Your task to perform on an android device: turn on bluetooth scan Image 0: 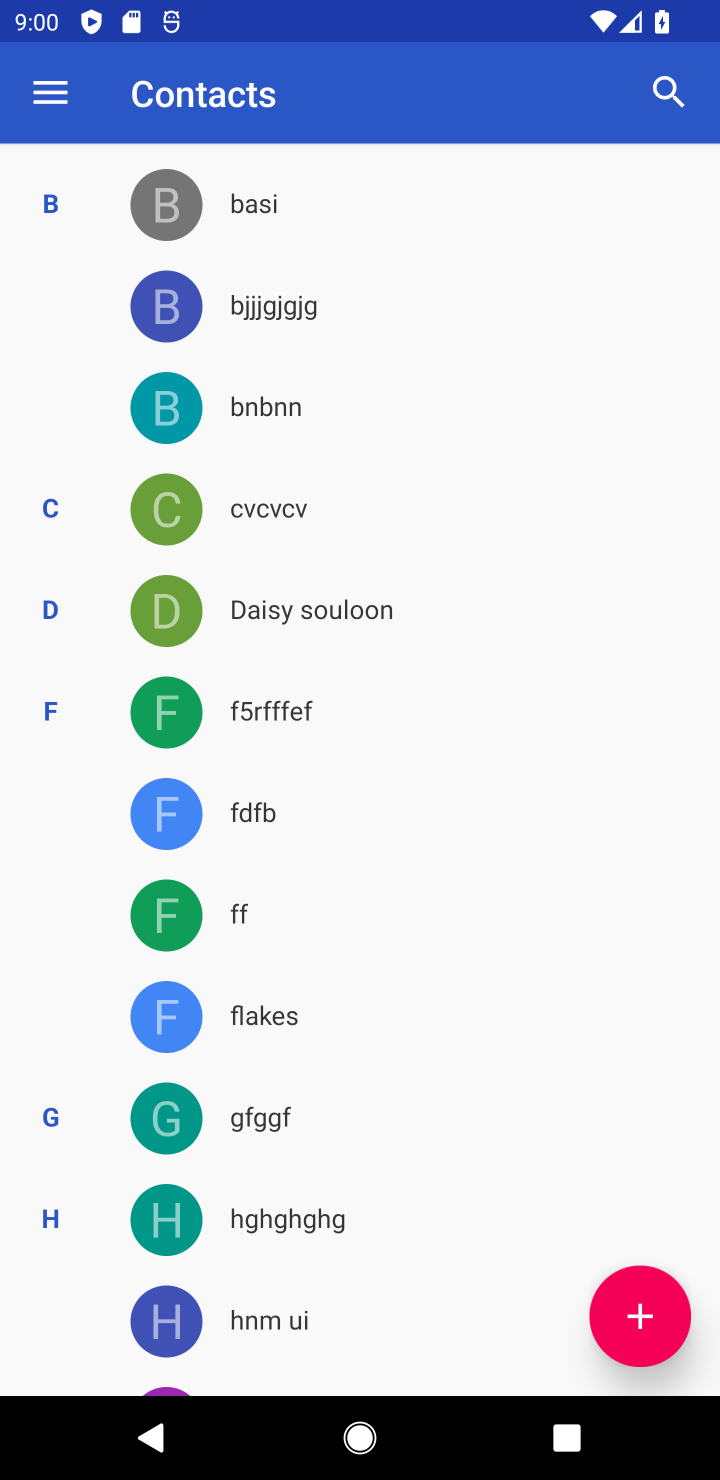
Step 0: press home button
Your task to perform on an android device: turn on bluetooth scan Image 1: 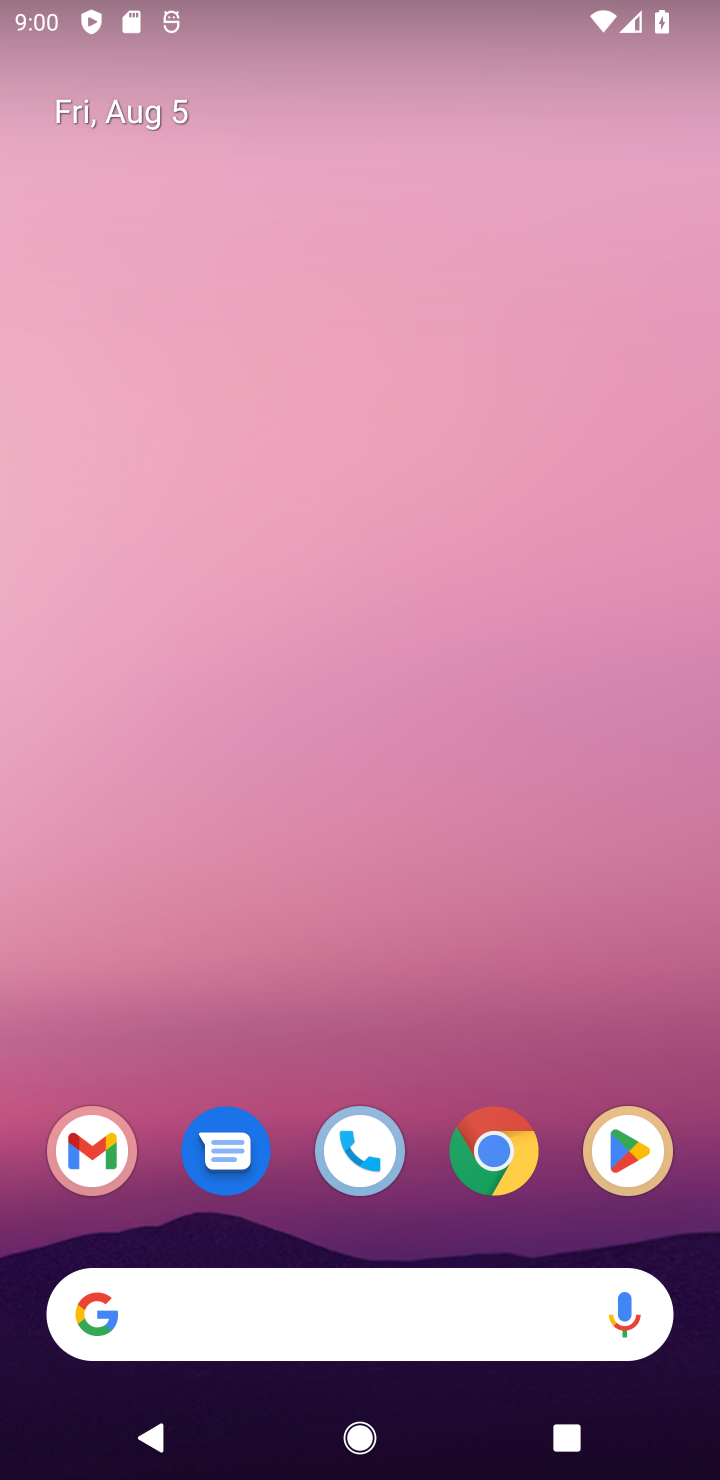
Step 1: click (283, 1208)
Your task to perform on an android device: turn on bluetooth scan Image 2: 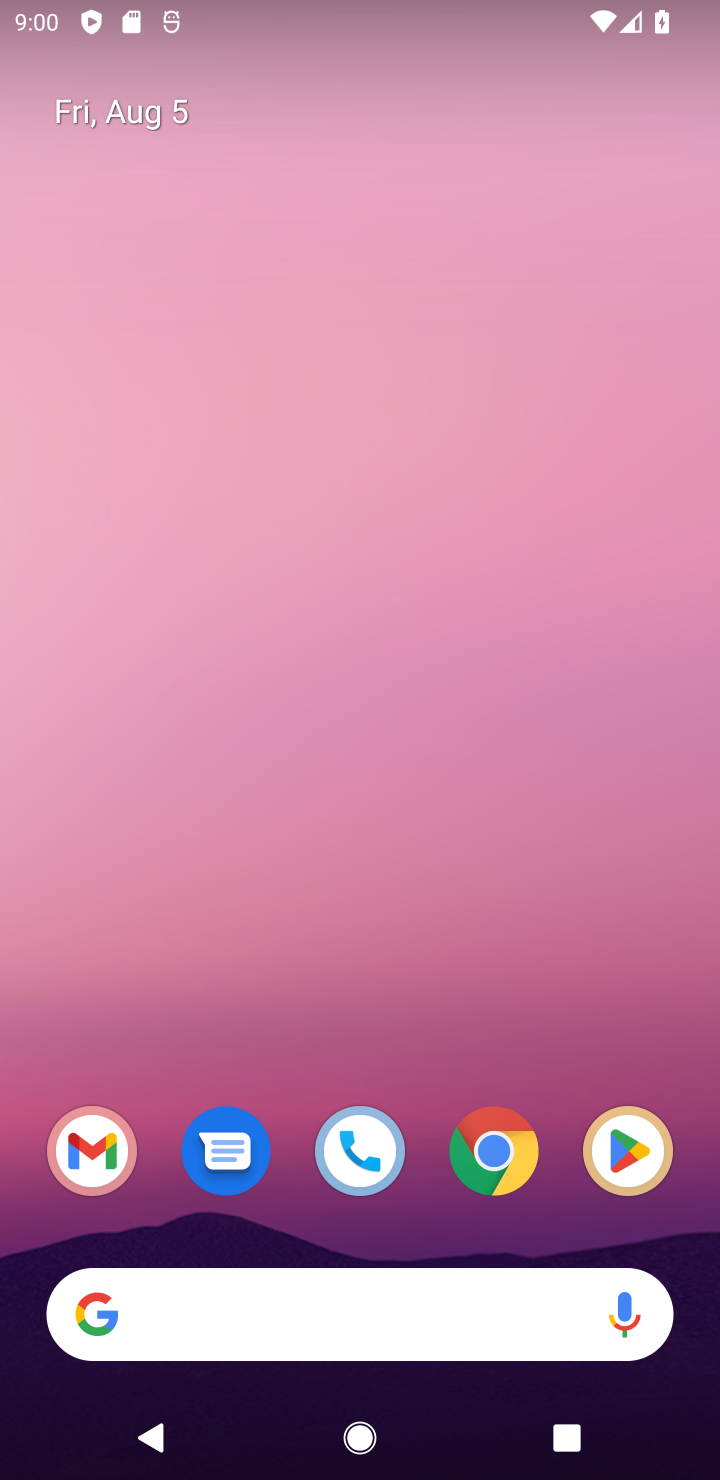
Step 2: drag from (379, 1212) to (404, 14)
Your task to perform on an android device: turn on bluetooth scan Image 3: 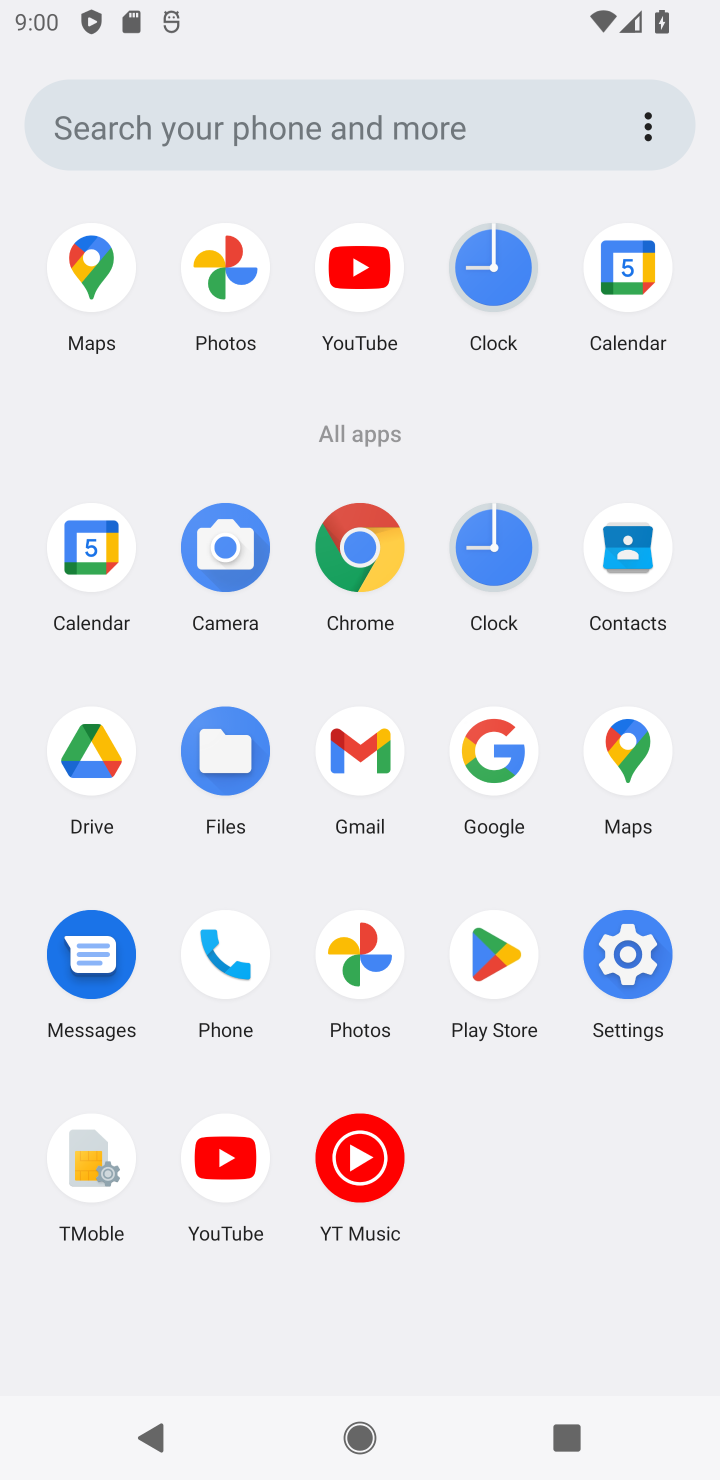
Step 3: click (625, 956)
Your task to perform on an android device: turn on bluetooth scan Image 4: 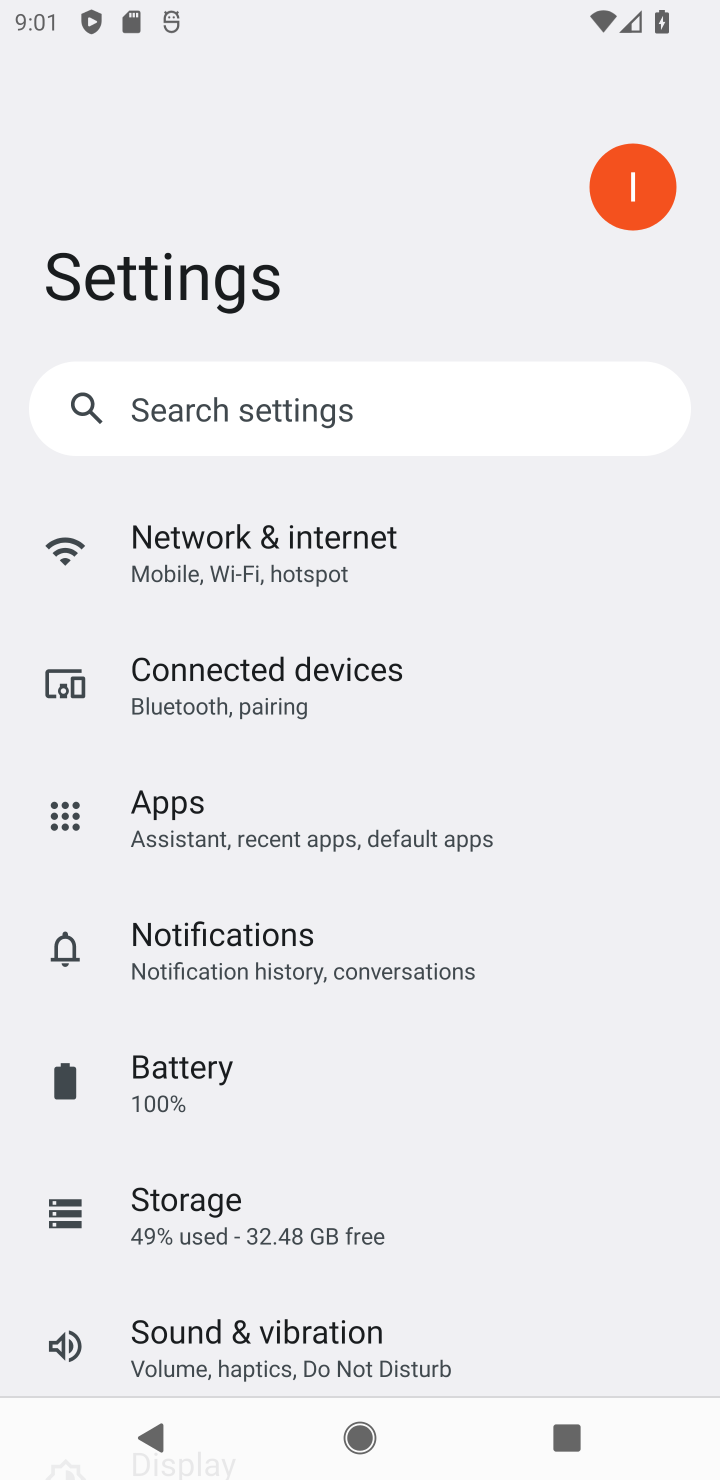
Step 4: drag from (277, 132) to (282, 45)
Your task to perform on an android device: turn on bluetooth scan Image 5: 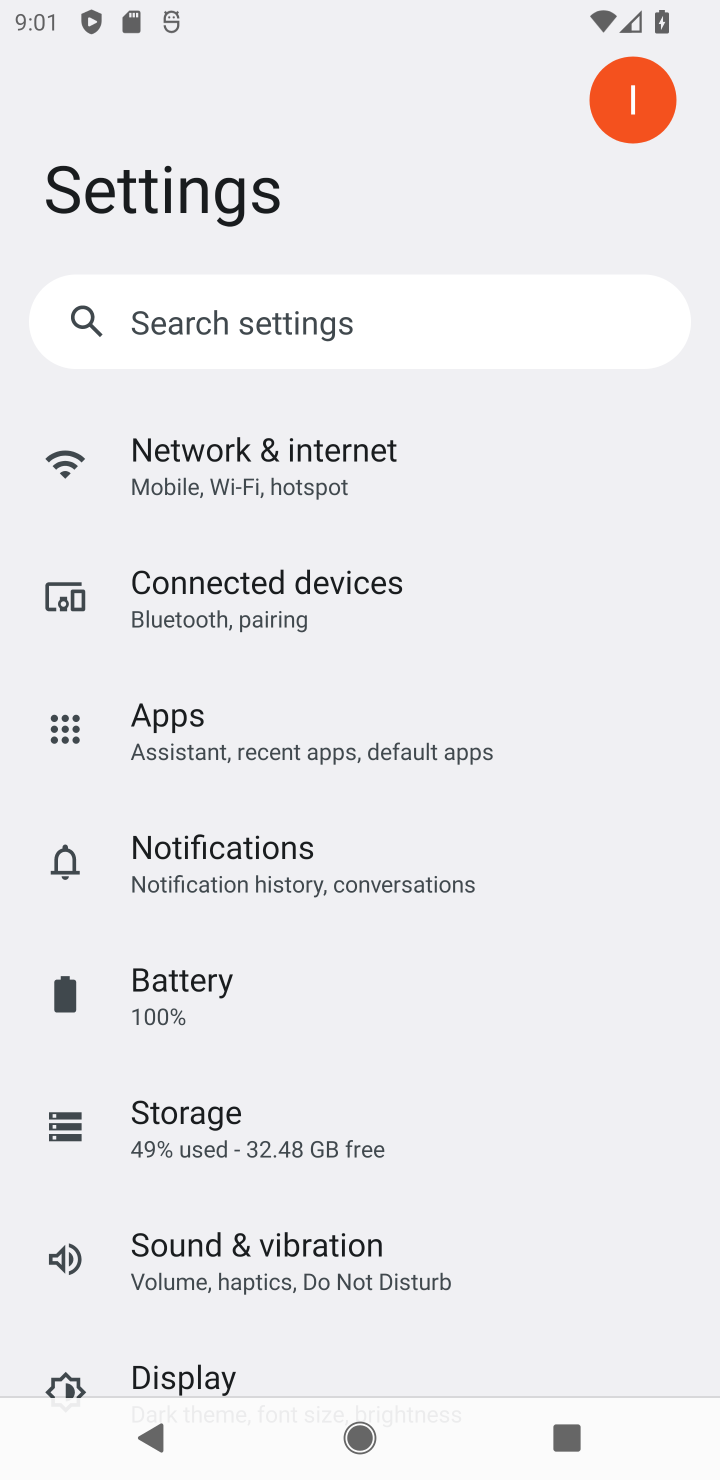
Step 5: drag from (247, 1330) to (99, 119)
Your task to perform on an android device: turn on bluetooth scan Image 6: 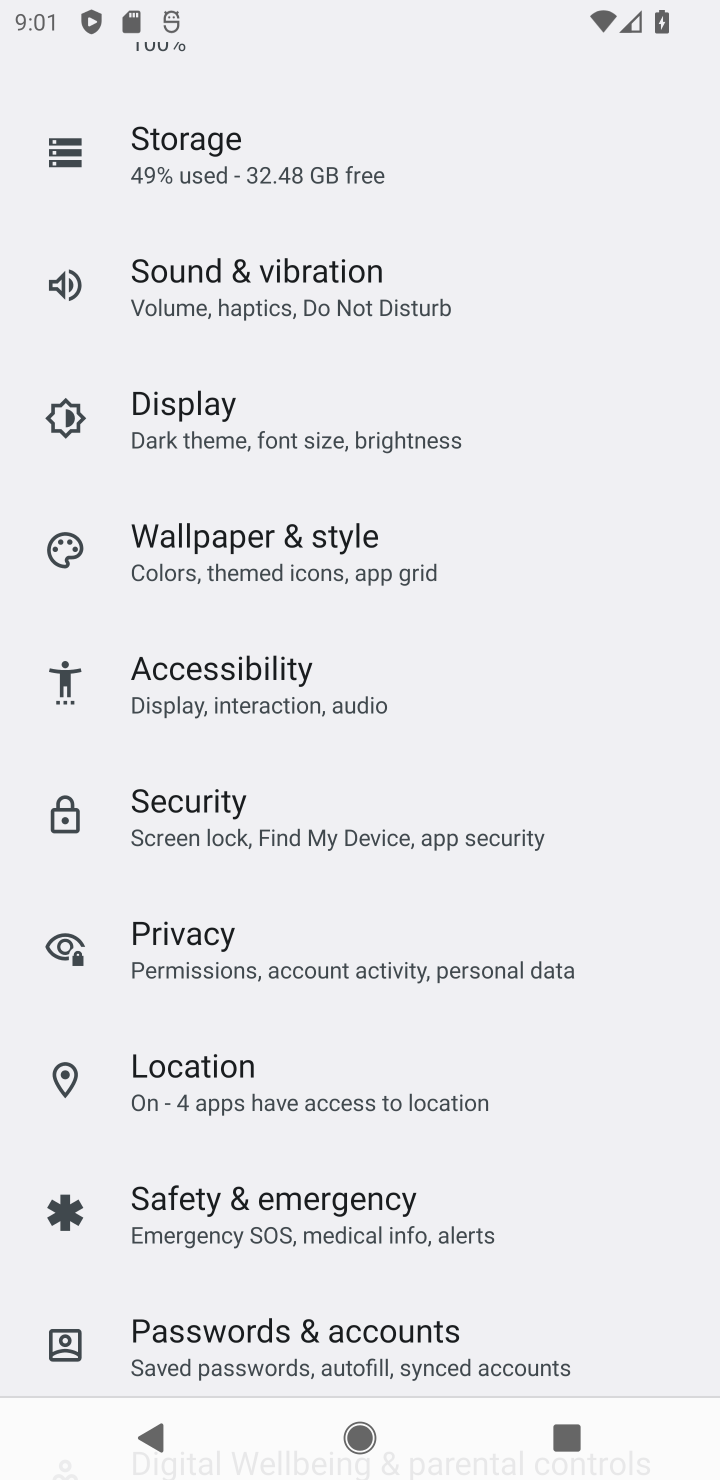
Step 6: click (200, 1072)
Your task to perform on an android device: turn on bluetooth scan Image 7: 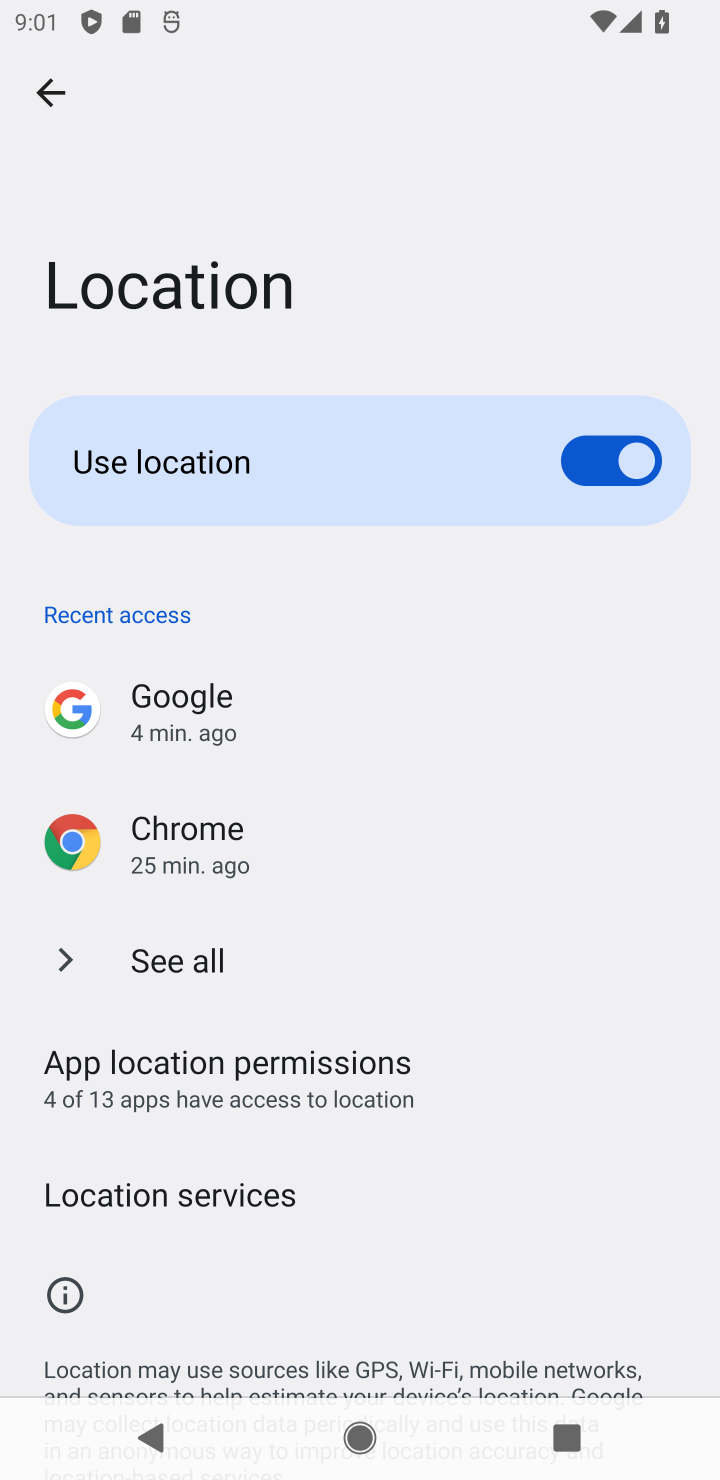
Step 7: drag from (474, 1258) to (362, 534)
Your task to perform on an android device: turn on bluetooth scan Image 8: 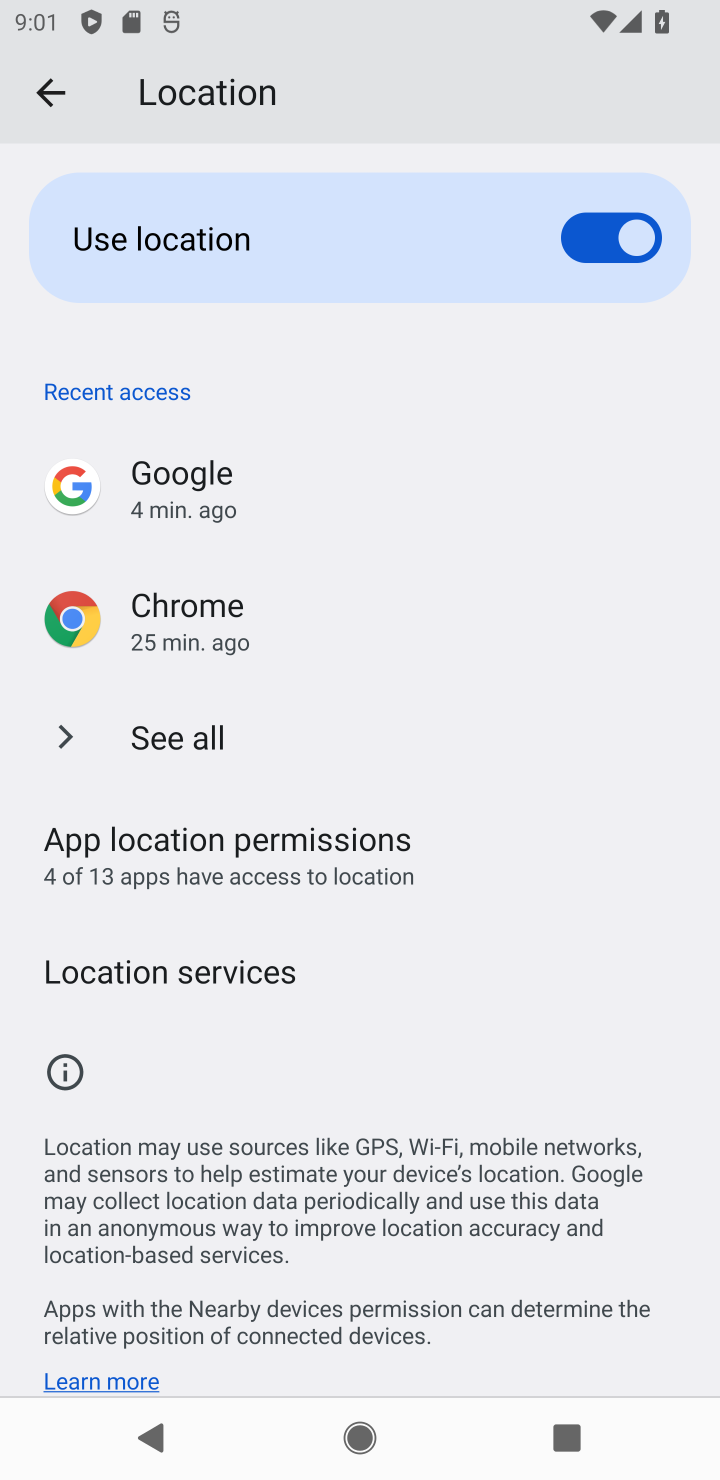
Step 8: drag from (344, 1190) to (332, 367)
Your task to perform on an android device: turn on bluetooth scan Image 9: 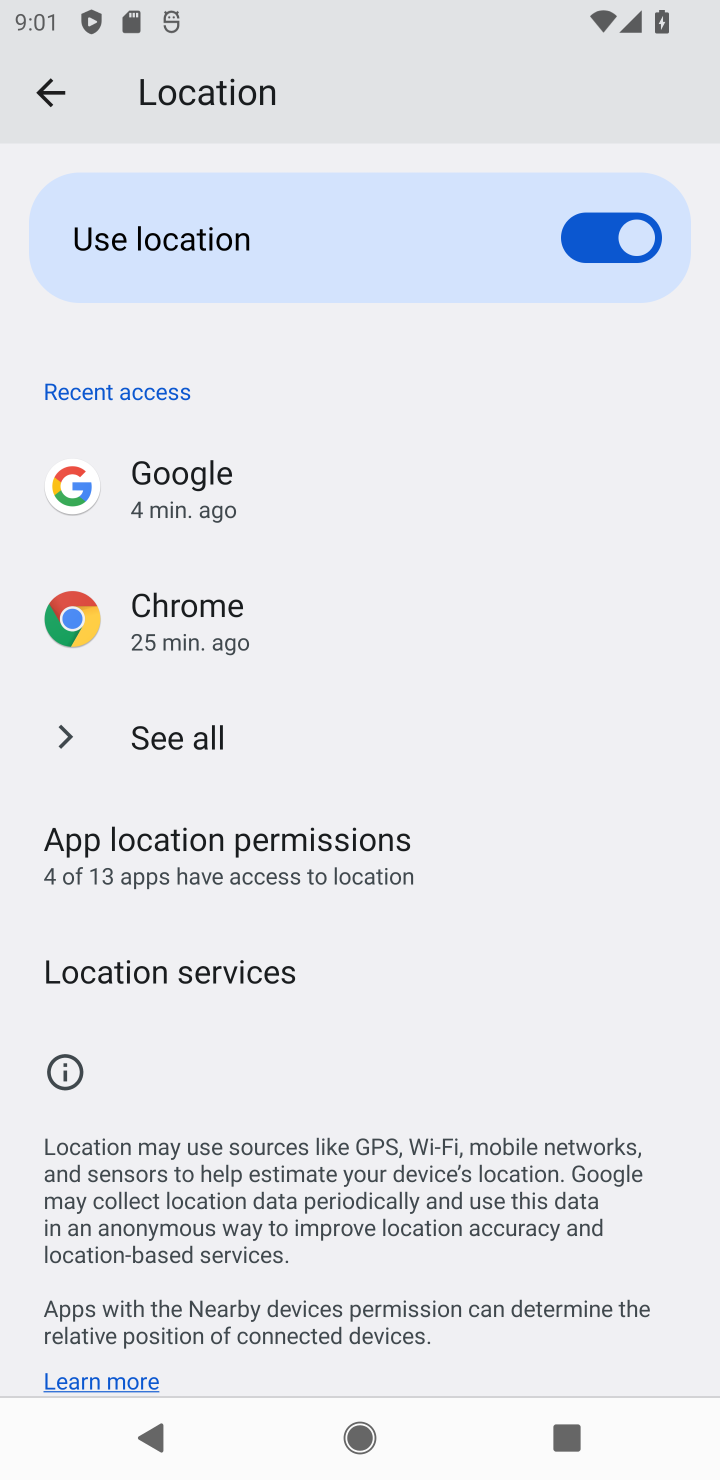
Step 9: drag from (360, 1313) to (286, 55)
Your task to perform on an android device: turn on bluetooth scan Image 10: 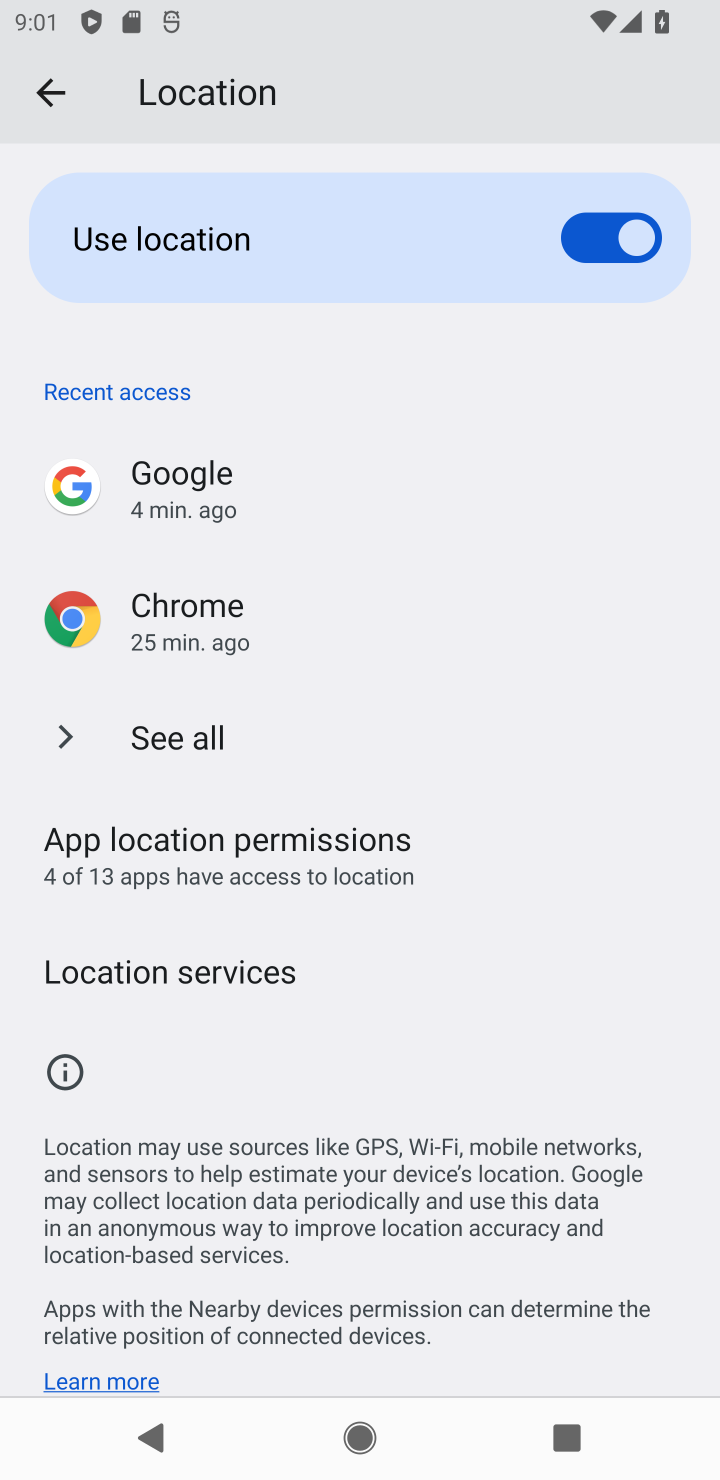
Step 10: click (261, 412)
Your task to perform on an android device: turn on bluetooth scan Image 11: 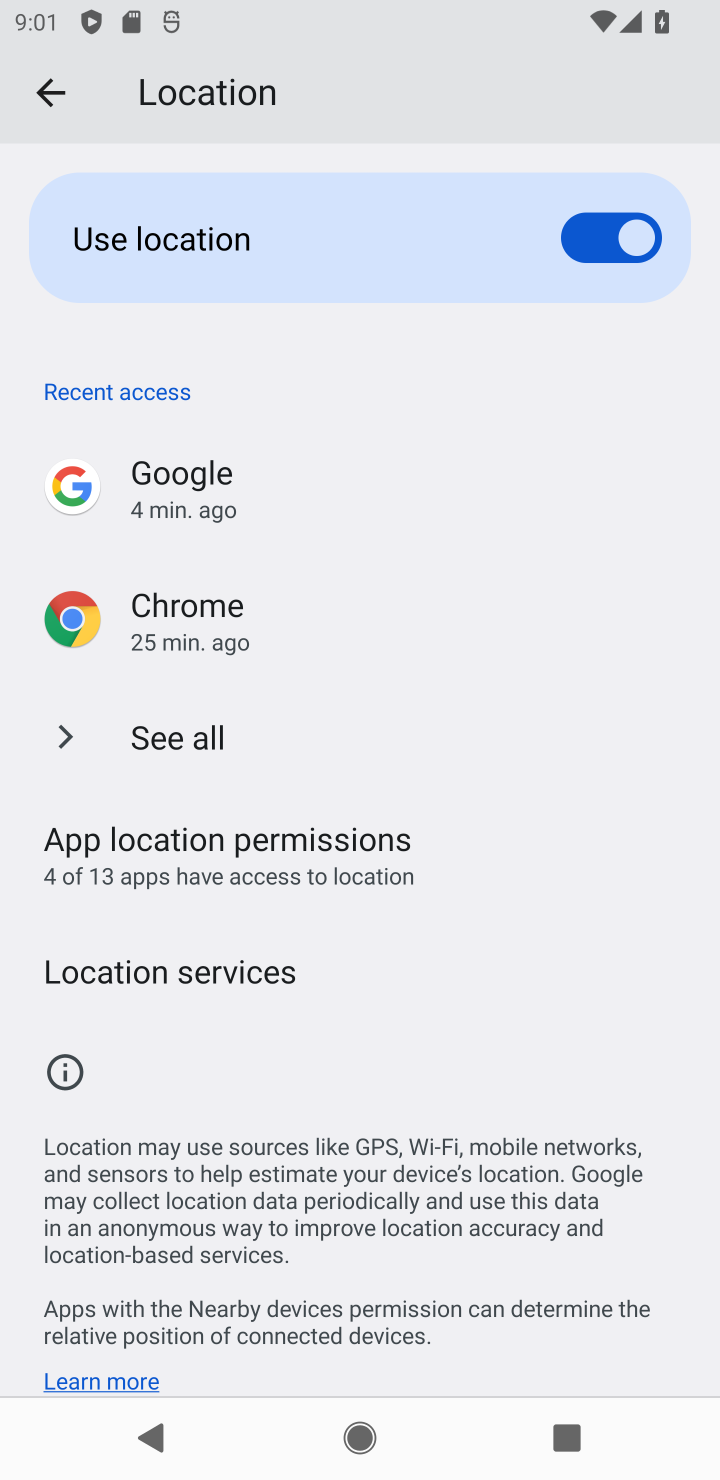
Step 11: click (137, 983)
Your task to perform on an android device: turn on bluetooth scan Image 12: 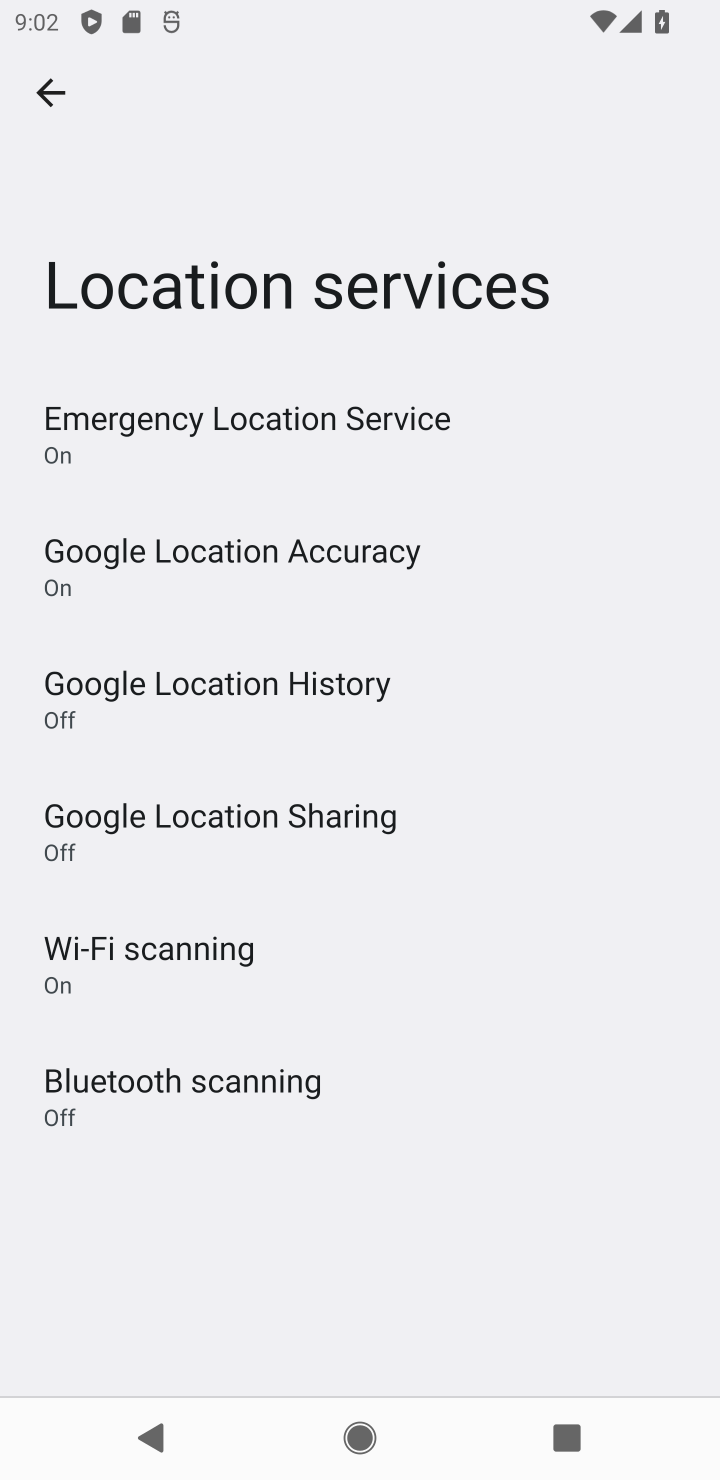
Step 12: click (158, 1100)
Your task to perform on an android device: turn on bluetooth scan Image 13: 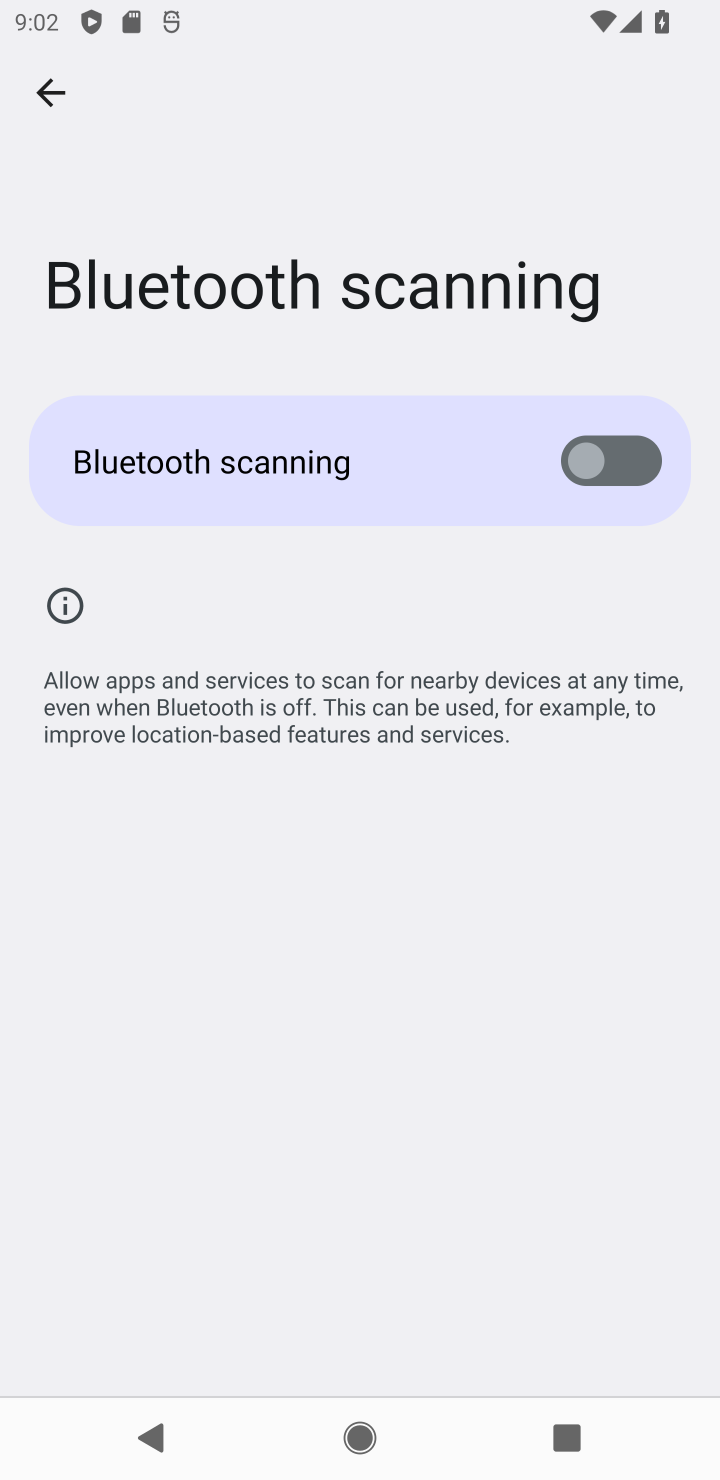
Step 13: click (620, 475)
Your task to perform on an android device: turn on bluetooth scan Image 14: 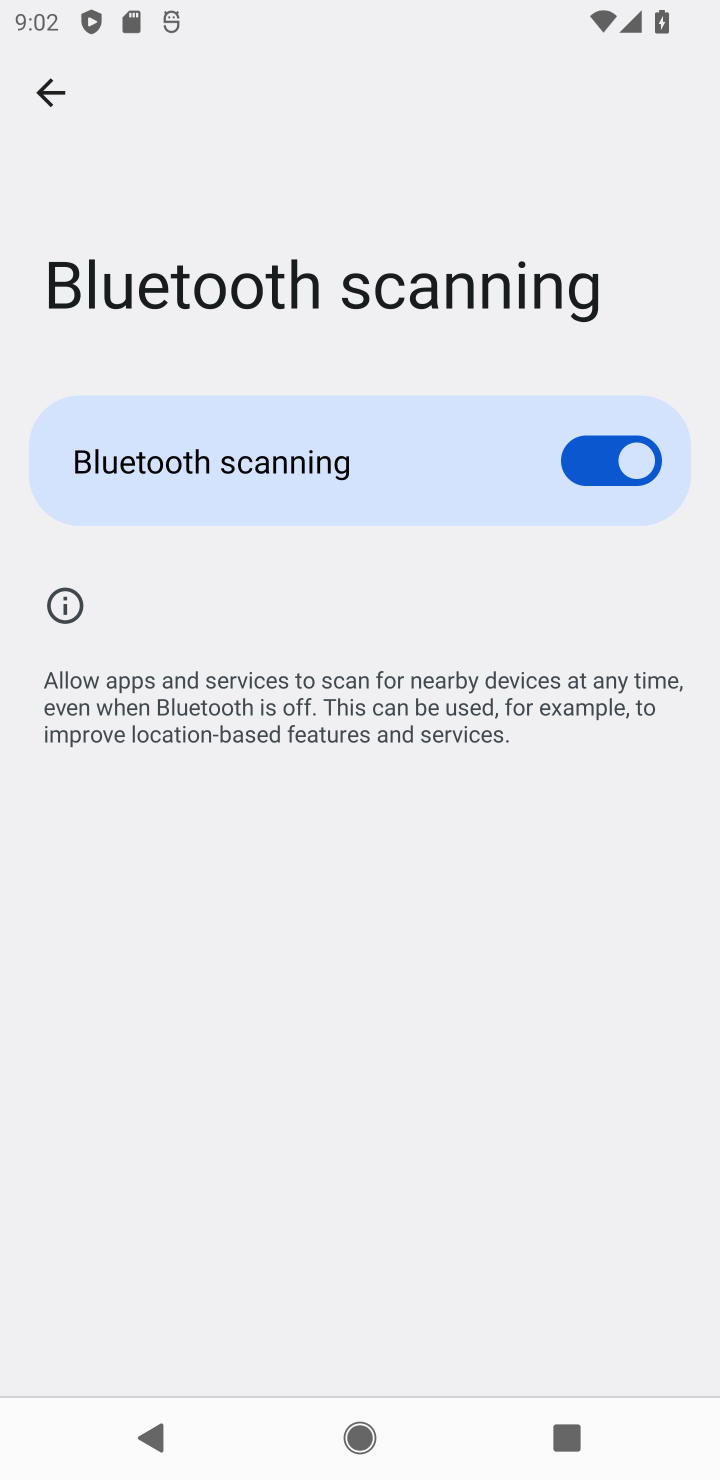
Step 14: task complete